Your task to perform on an android device: Open the calendar and show me this week's events? Image 0: 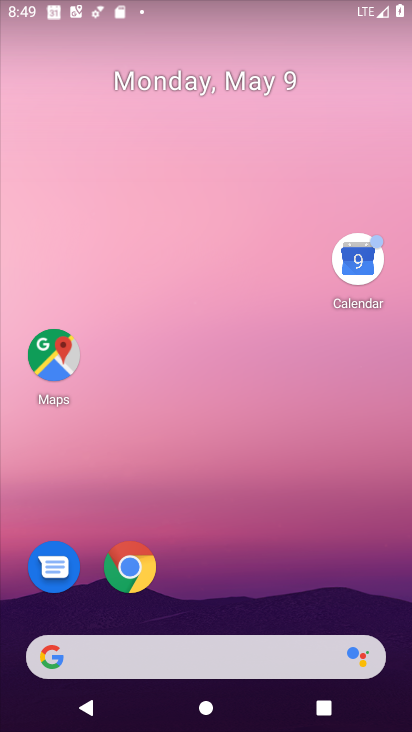
Step 0: drag from (217, 609) to (242, 26)
Your task to perform on an android device: Open the calendar and show me this week's events? Image 1: 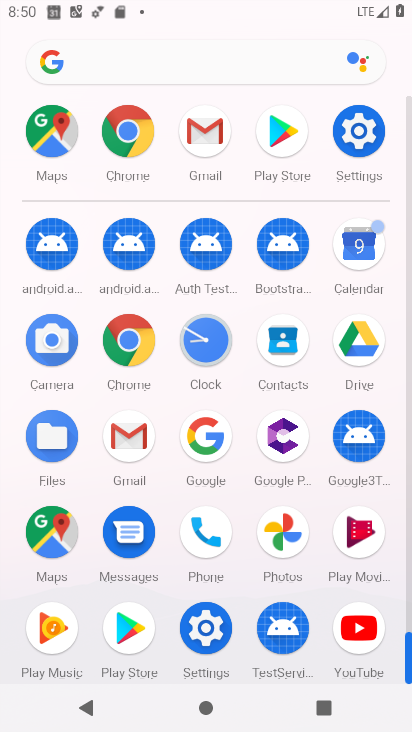
Step 1: drag from (236, 655) to (236, 325)
Your task to perform on an android device: Open the calendar and show me this week's events? Image 2: 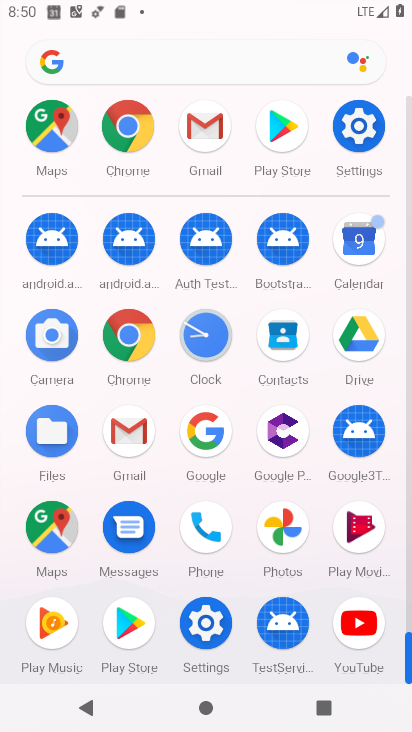
Step 2: drag from (247, 650) to (259, 335)
Your task to perform on an android device: Open the calendar and show me this week's events? Image 3: 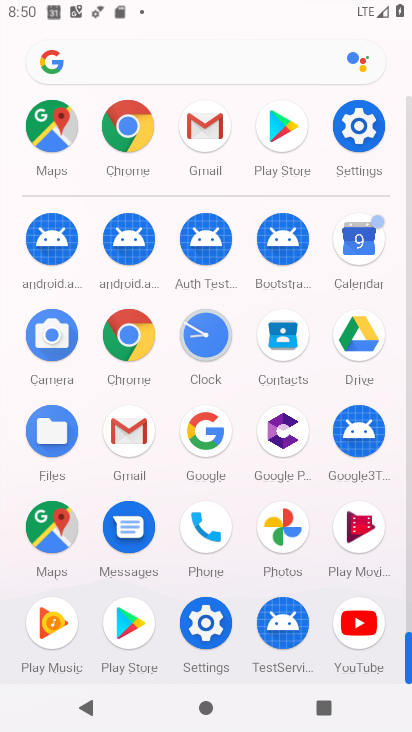
Step 3: click (343, 253)
Your task to perform on an android device: Open the calendar and show me this week's events? Image 4: 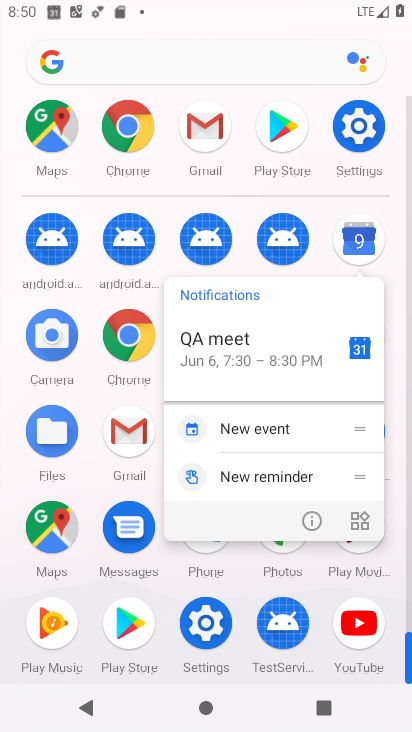
Step 4: click (310, 524)
Your task to perform on an android device: Open the calendar and show me this week's events? Image 5: 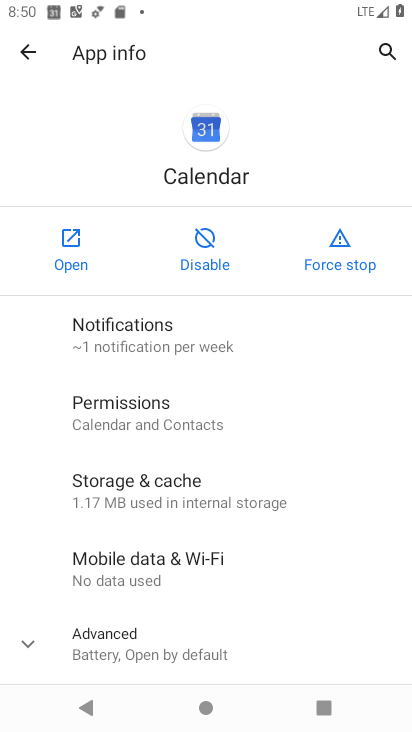
Step 5: click (73, 228)
Your task to perform on an android device: Open the calendar and show me this week's events? Image 6: 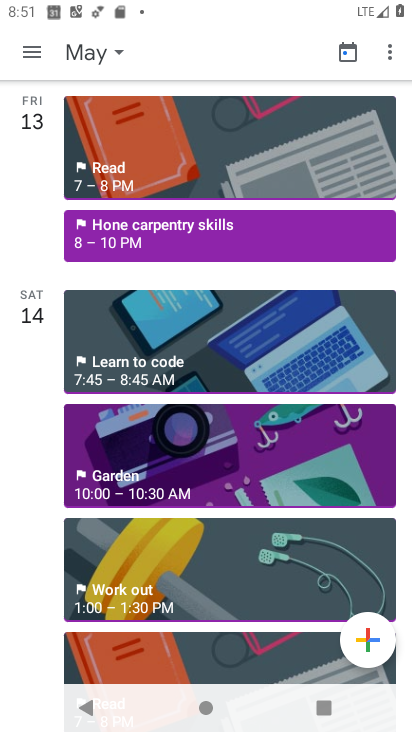
Step 6: drag from (206, 593) to (216, 206)
Your task to perform on an android device: Open the calendar and show me this week's events? Image 7: 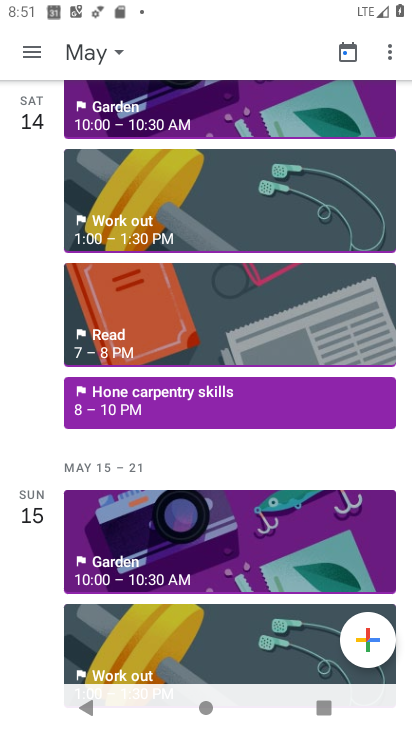
Step 7: drag from (213, 614) to (285, 240)
Your task to perform on an android device: Open the calendar and show me this week's events? Image 8: 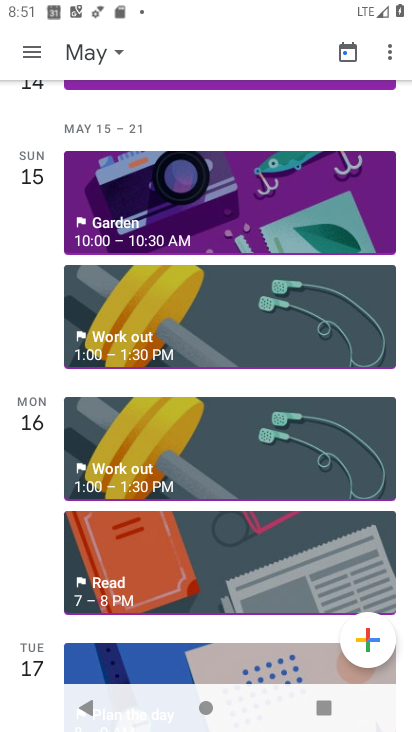
Step 8: drag from (225, 620) to (228, 180)
Your task to perform on an android device: Open the calendar and show me this week's events? Image 9: 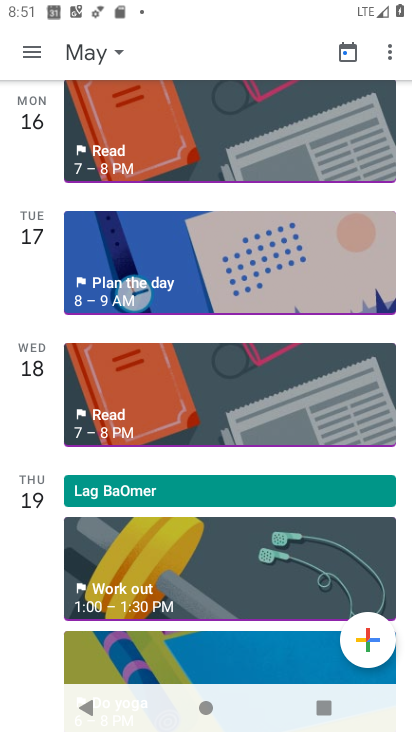
Step 9: drag from (222, 585) to (258, 251)
Your task to perform on an android device: Open the calendar and show me this week's events? Image 10: 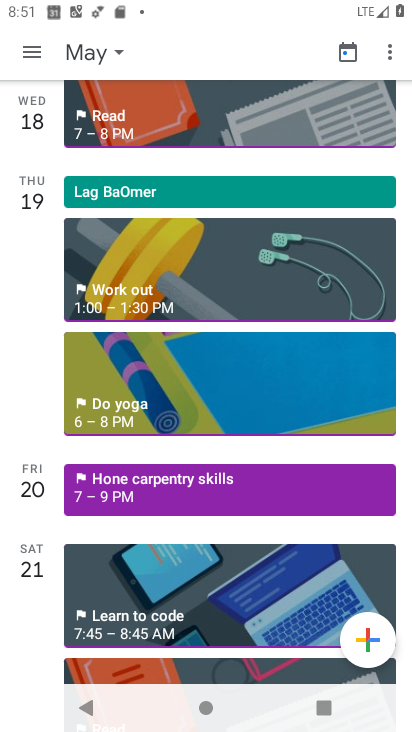
Step 10: drag from (201, 616) to (249, 255)
Your task to perform on an android device: Open the calendar and show me this week's events? Image 11: 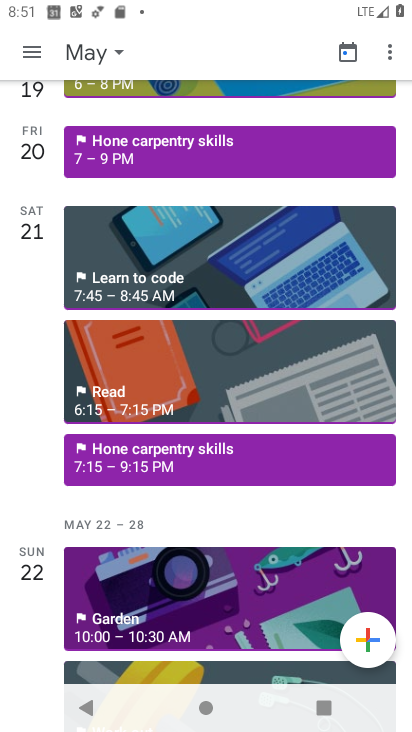
Step 11: drag from (218, 592) to (256, 222)
Your task to perform on an android device: Open the calendar and show me this week's events? Image 12: 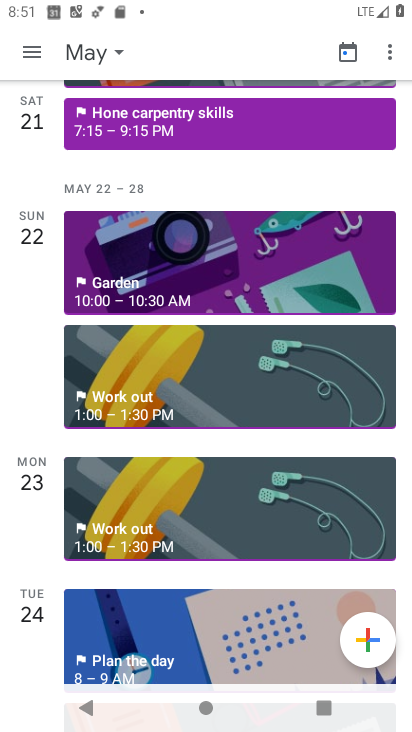
Step 12: drag from (190, 657) to (224, 336)
Your task to perform on an android device: Open the calendar and show me this week's events? Image 13: 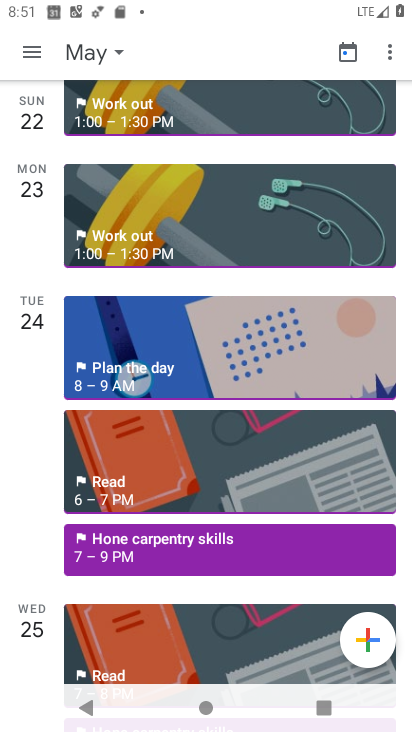
Step 13: drag from (241, 131) to (293, 711)
Your task to perform on an android device: Open the calendar and show me this week's events? Image 14: 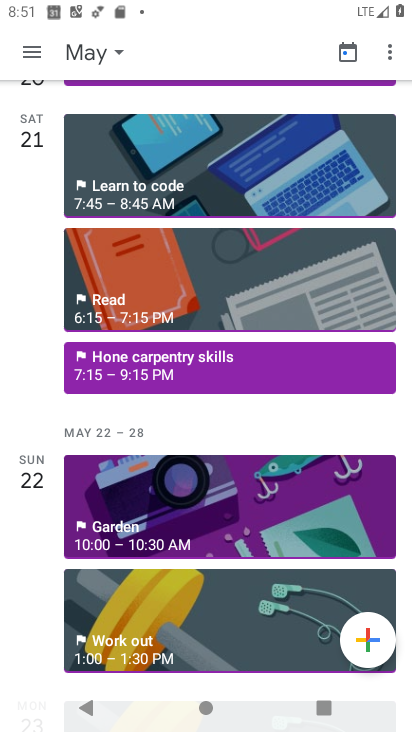
Step 14: click (106, 37)
Your task to perform on an android device: Open the calendar and show me this week's events? Image 15: 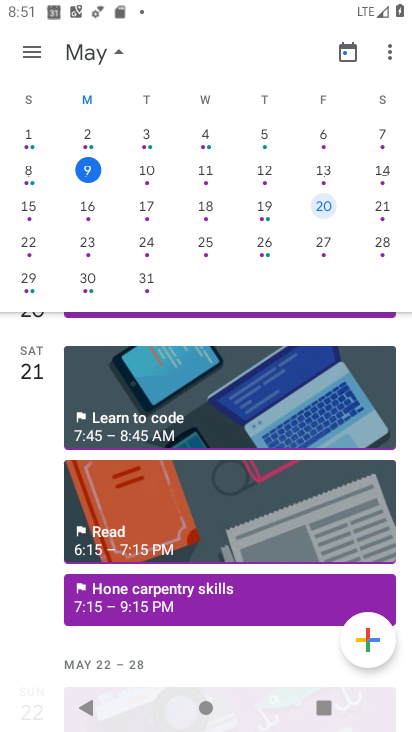
Step 15: click (264, 172)
Your task to perform on an android device: Open the calendar and show me this week's events? Image 16: 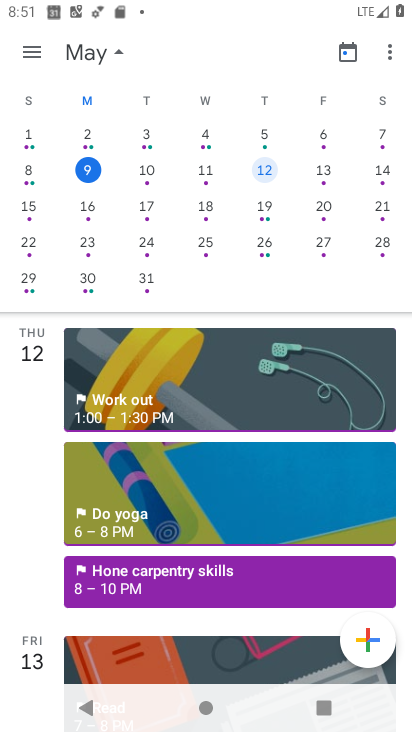
Step 16: task complete